Your task to perform on an android device: set default search engine in the chrome app Image 0: 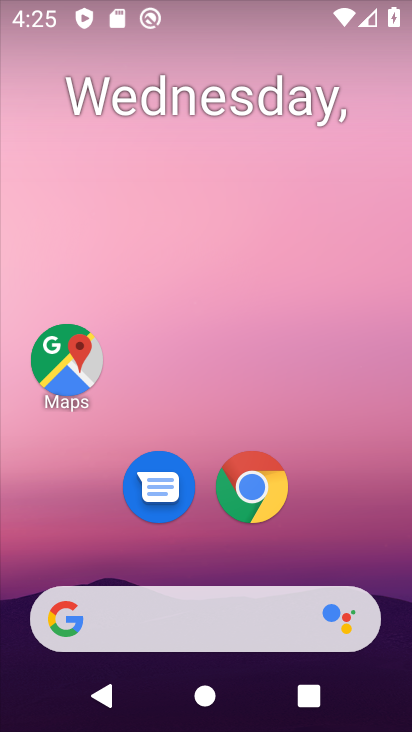
Step 0: click (251, 481)
Your task to perform on an android device: set default search engine in the chrome app Image 1: 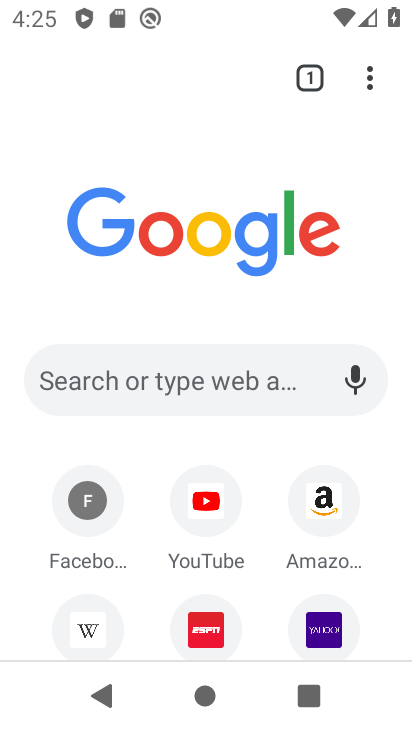
Step 1: click (366, 78)
Your task to perform on an android device: set default search engine in the chrome app Image 2: 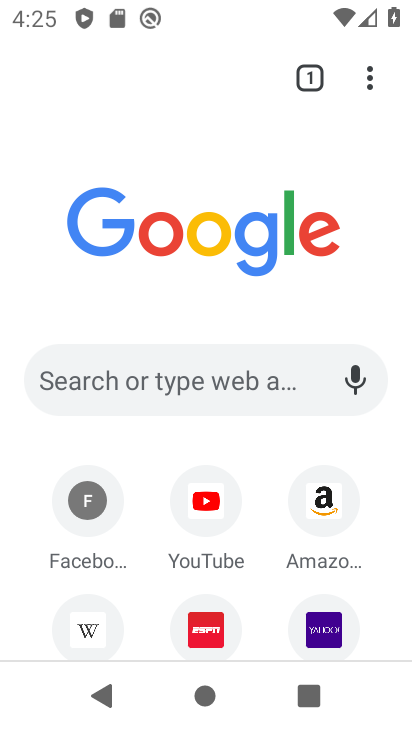
Step 2: click (367, 69)
Your task to perform on an android device: set default search engine in the chrome app Image 3: 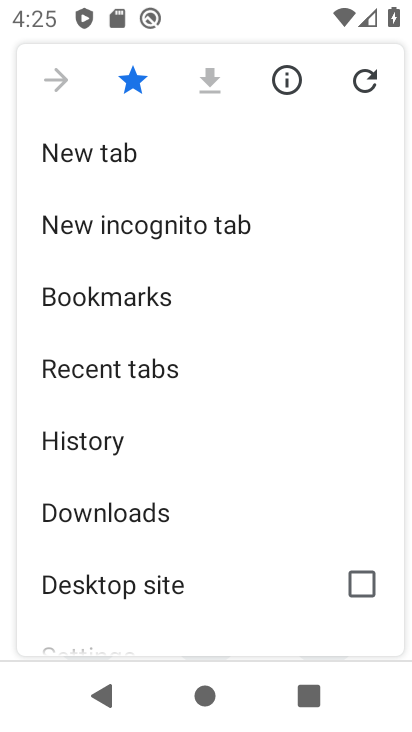
Step 3: drag from (199, 599) to (229, 73)
Your task to perform on an android device: set default search engine in the chrome app Image 4: 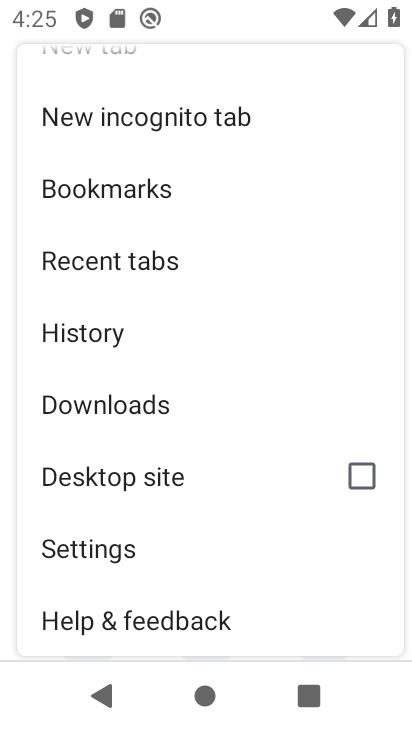
Step 4: click (156, 543)
Your task to perform on an android device: set default search engine in the chrome app Image 5: 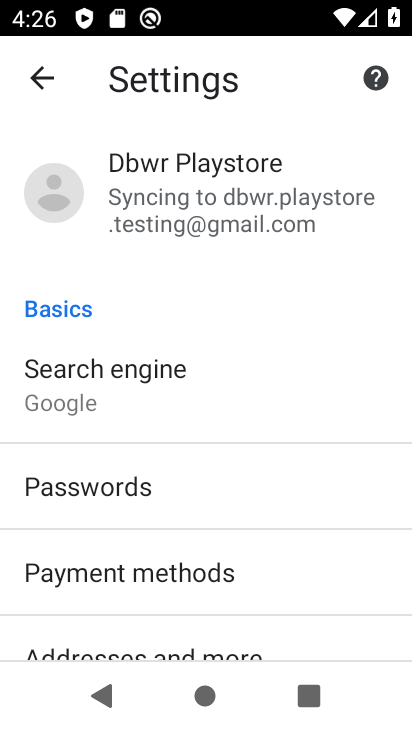
Step 5: click (147, 399)
Your task to perform on an android device: set default search engine in the chrome app Image 6: 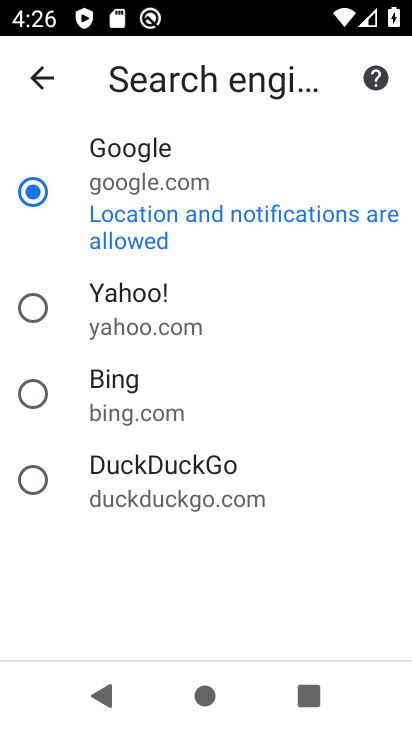
Step 6: click (26, 302)
Your task to perform on an android device: set default search engine in the chrome app Image 7: 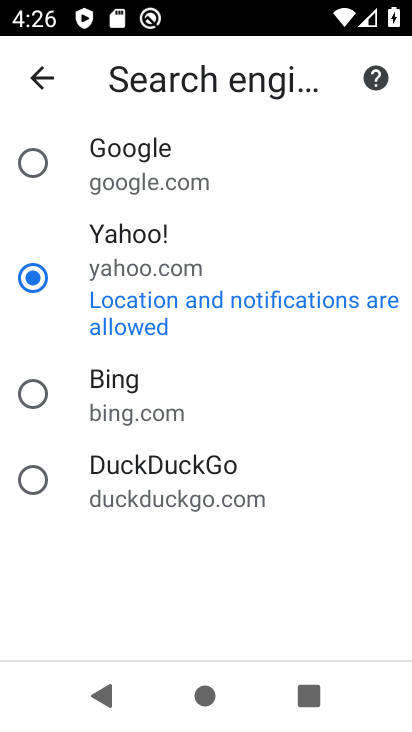
Step 7: task complete